Your task to perform on an android device: Show me popular games on the Play Store Image 0: 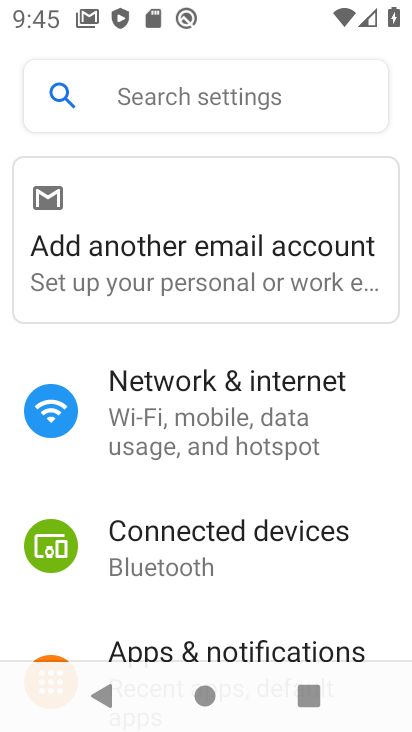
Step 0: press home button
Your task to perform on an android device: Show me popular games on the Play Store Image 1: 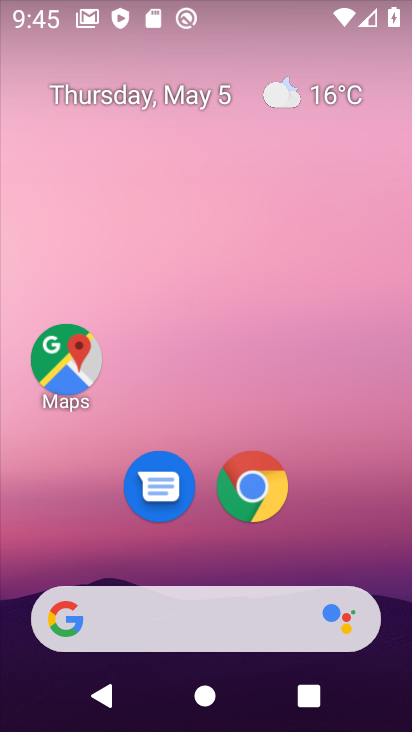
Step 1: drag from (110, 578) to (211, 115)
Your task to perform on an android device: Show me popular games on the Play Store Image 2: 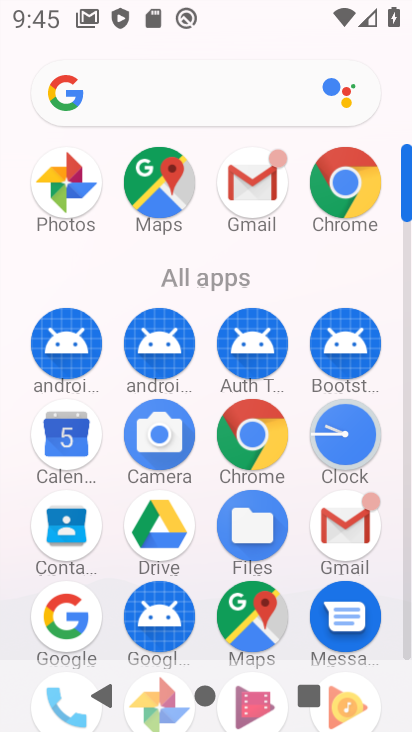
Step 2: drag from (147, 609) to (198, 333)
Your task to perform on an android device: Show me popular games on the Play Store Image 3: 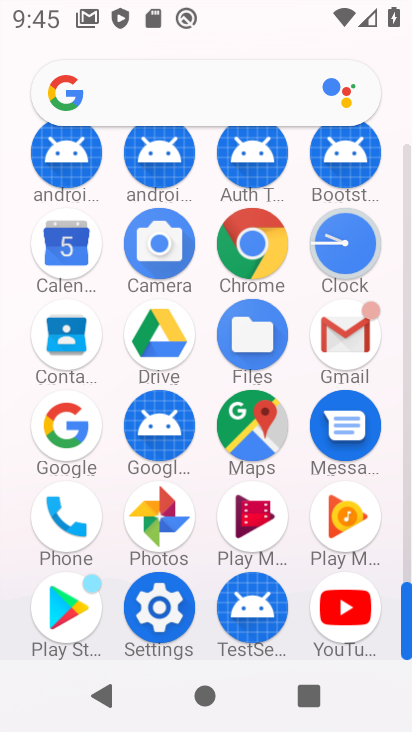
Step 3: click (75, 601)
Your task to perform on an android device: Show me popular games on the Play Store Image 4: 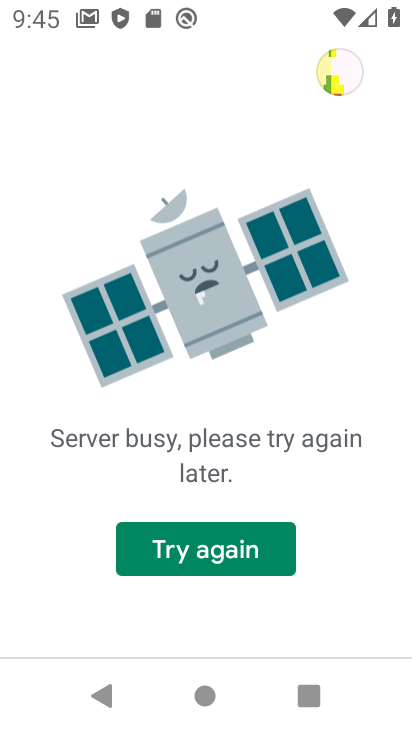
Step 4: click (243, 551)
Your task to perform on an android device: Show me popular games on the Play Store Image 5: 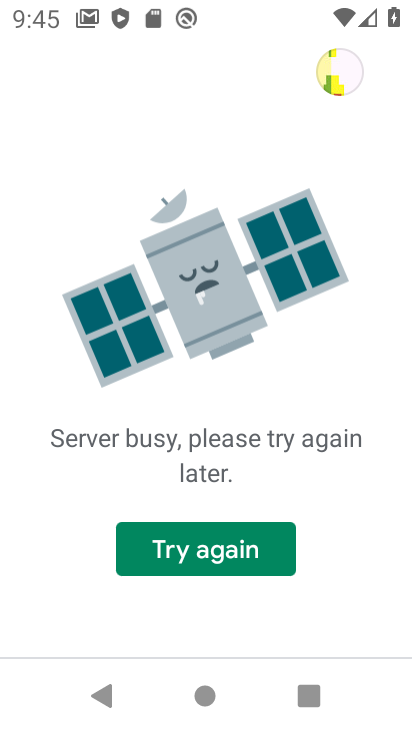
Step 5: task complete